Your task to perform on an android device: check out phone information Image 0: 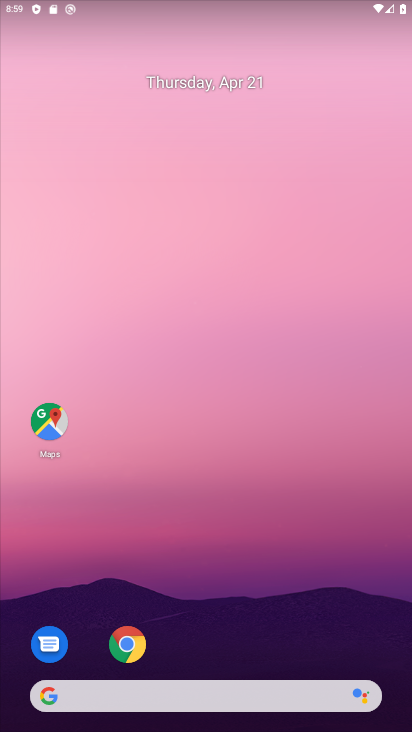
Step 0: drag from (198, 438) to (198, 276)
Your task to perform on an android device: check out phone information Image 1: 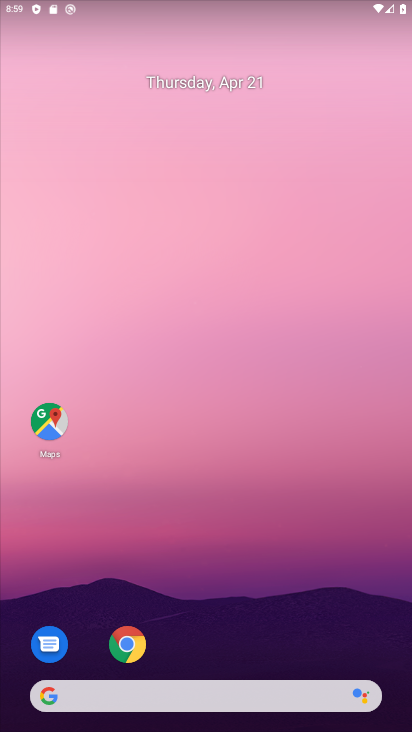
Step 1: drag from (207, 621) to (223, 334)
Your task to perform on an android device: check out phone information Image 2: 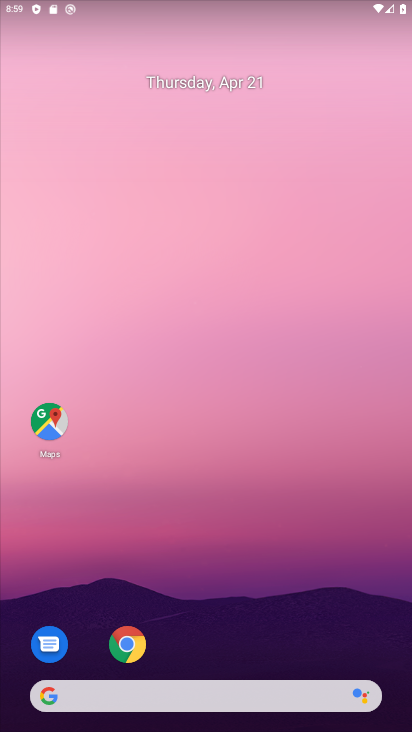
Step 2: drag from (265, 588) to (247, 244)
Your task to perform on an android device: check out phone information Image 3: 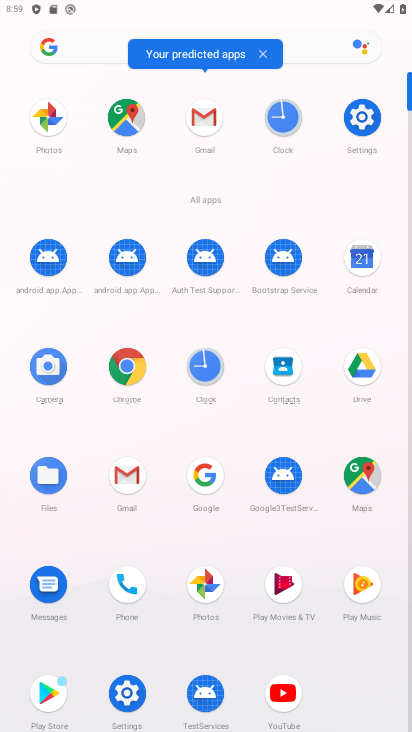
Step 3: click (121, 580)
Your task to perform on an android device: check out phone information Image 4: 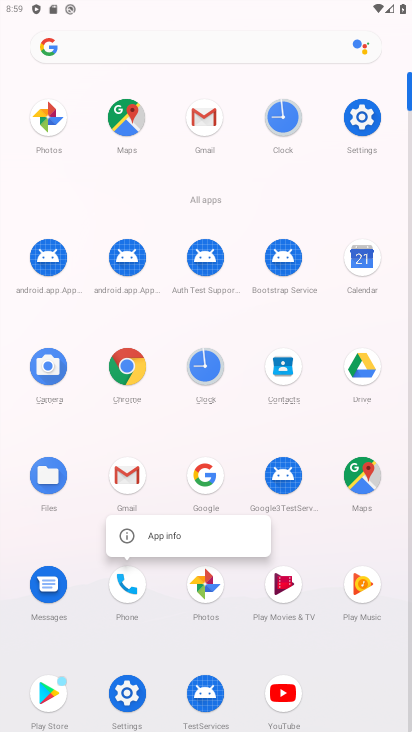
Step 4: click (175, 532)
Your task to perform on an android device: check out phone information Image 5: 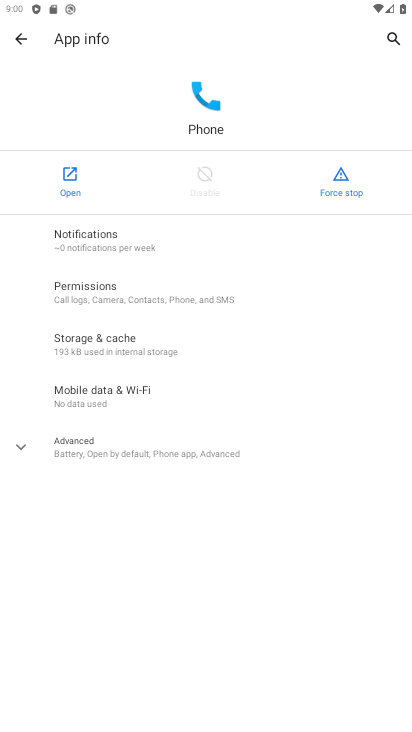
Step 5: task complete